Your task to perform on an android device: open app "Spotify: Music and Podcasts" (install if not already installed) and enter user name: "principled@inbox.com" and password: "arrests" Image 0: 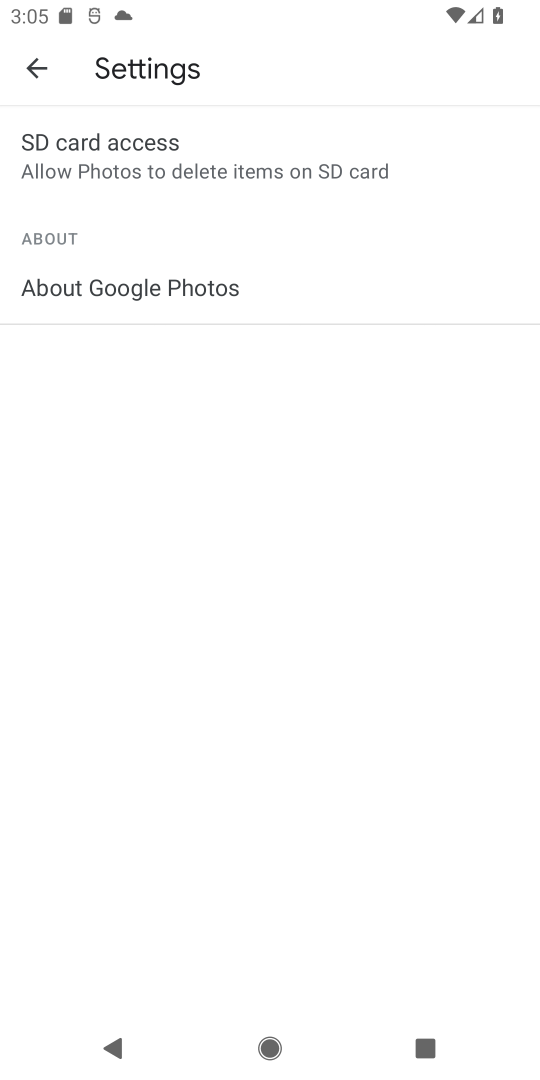
Step 0: press home button
Your task to perform on an android device: open app "Spotify: Music and Podcasts" (install if not already installed) and enter user name: "principled@inbox.com" and password: "arrests" Image 1: 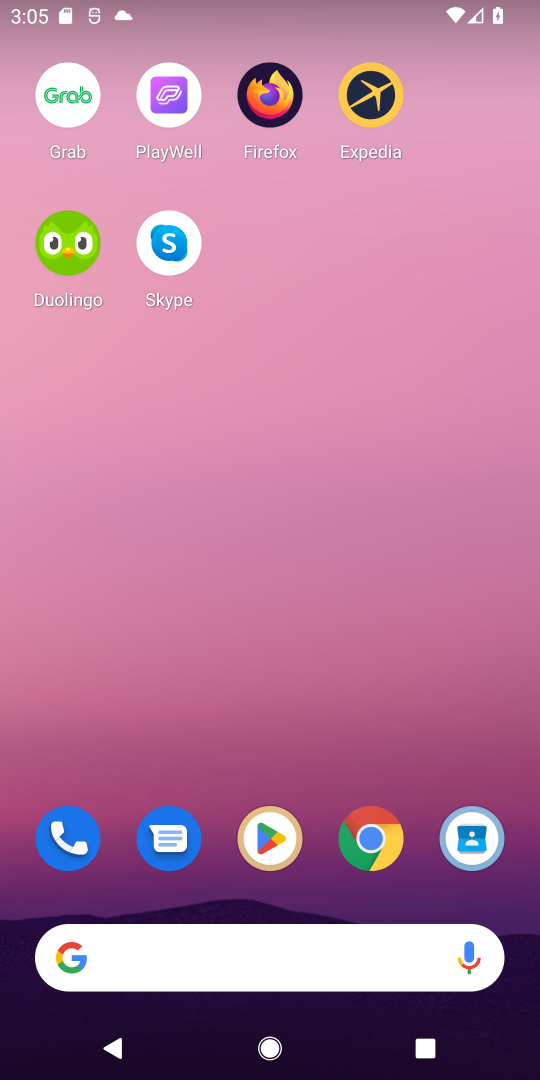
Step 1: click (289, 853)
Your task to perform on an android device: open app "Spotify: Music and Podcasts" (install if not already installed) and enter user name: "principled@inbox.com" and password: "arrests" Image 2: 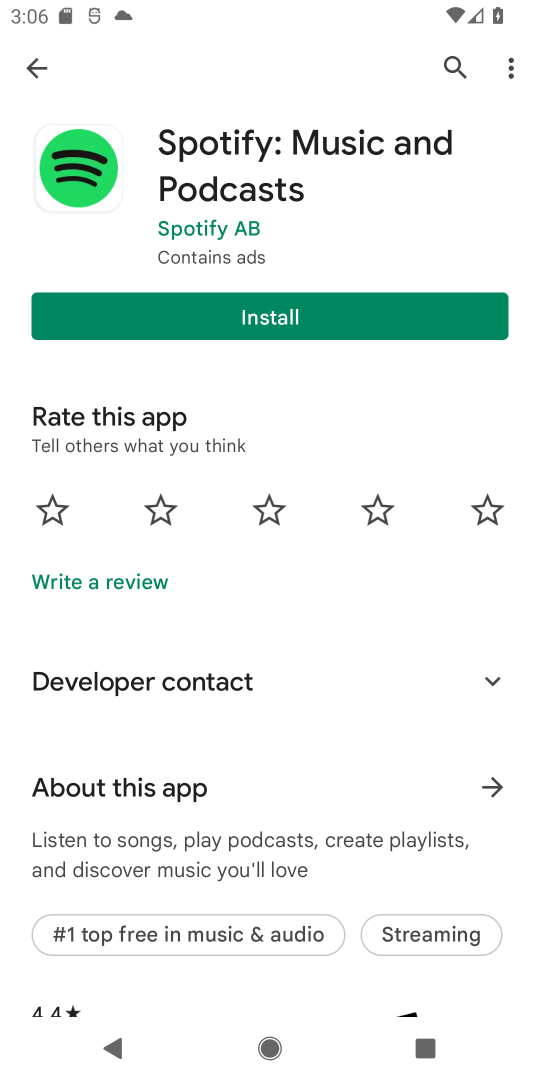
Step 2: click (34, 52)
Your task to perform on an android device: open app "Spotify: Music and Podcasts" (install if not already installed) and enter user name: "principled@inbox.com" and password: "arrests" Image 3: 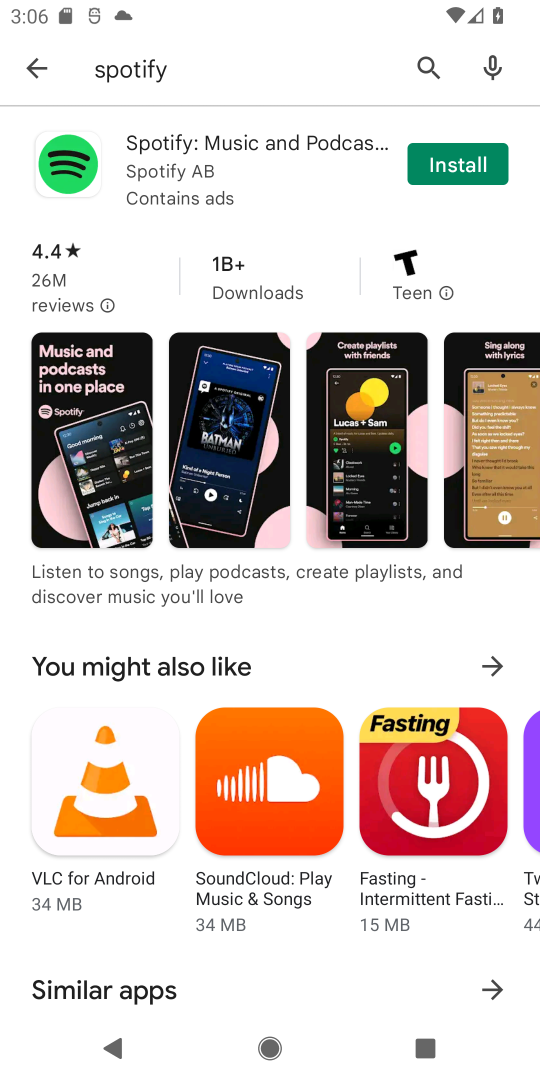
Step 3: click (487, 174)
Your task to perform on an android device: open app "Spotify: Music and Podcasts" (install if not already installed) and enter user name: "principled@inbox.com" and password: "arrests" Image 4: 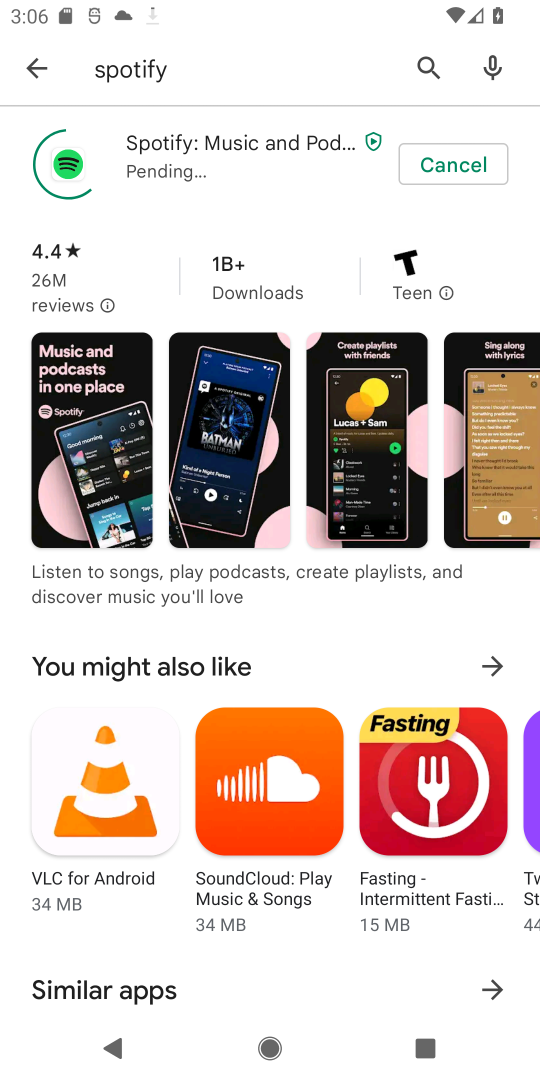
Step 4: click (266, 135)
Your task to perform on an android device: open app "Spotify: Music and Podcasts" (install if not already installed) and enter user name: "principled@inbox.com" and password: "arrests" Image 5: 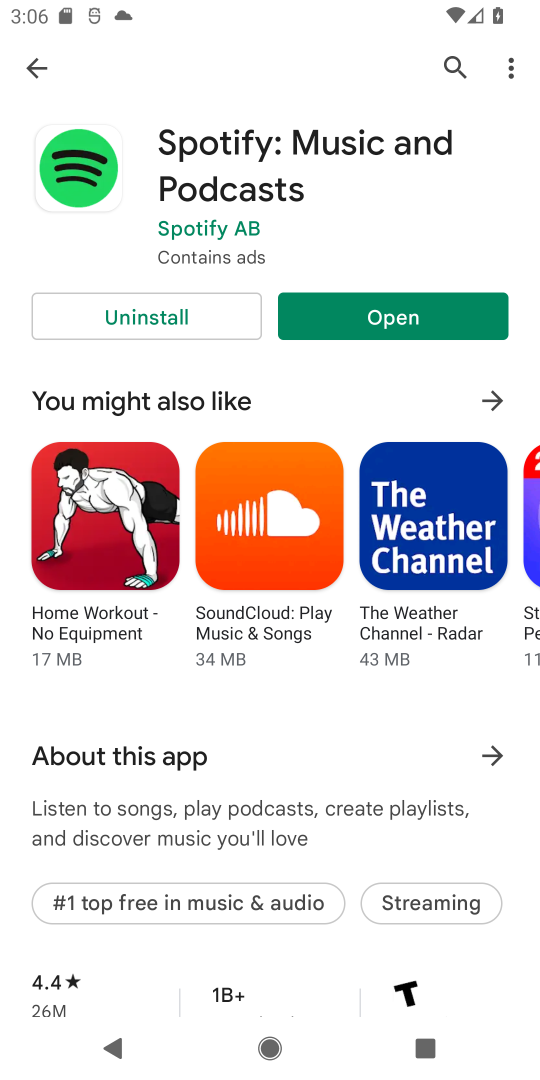
Step 5: click (365, 324)
Your task to perform on an android device: open app "Spotify: Music and Podcasts" (install if not already installed) and enter user name: "principled@inbox.com" and password: "arrests" Image 6: 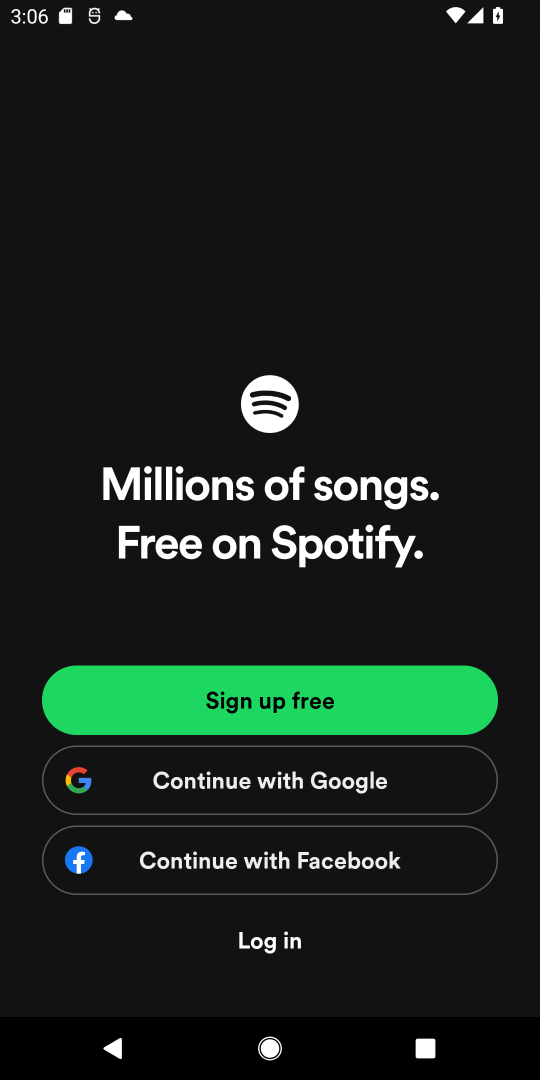
Step 6: click (249, 935)
Your task to perform on an android device: open app "Spotify: Music and Podcasts" (install if not already installed) and enter user name: "principled@inbox.com" and password: "arrests" Image 7: 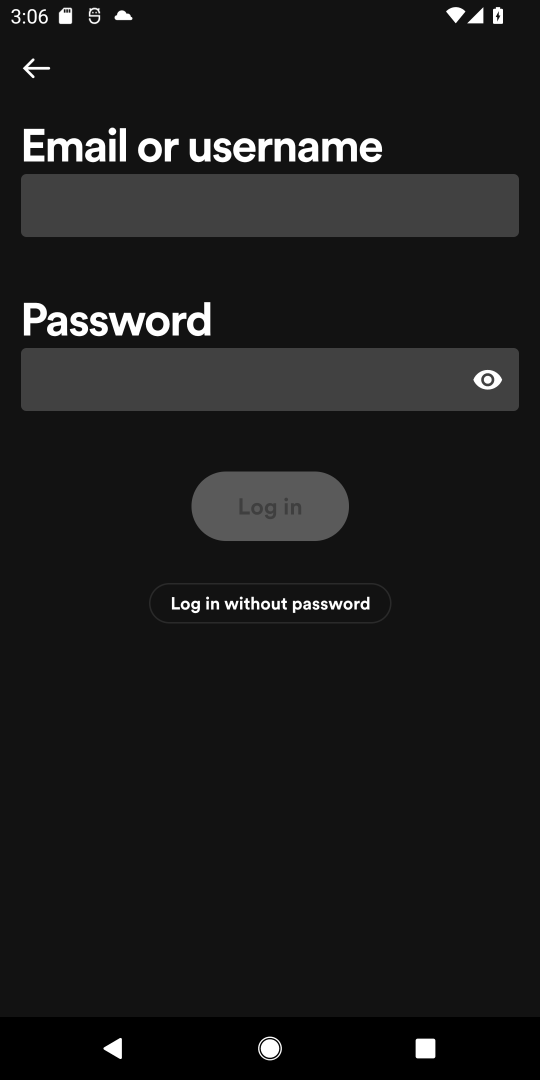
Step 7: click (171, 216)
Your task to perform on an android device: open app "Spotify: Music and Podcasts" (install if not already installed) and enter user name: "principled@inbox.com" and password: "arrests" Image 8: 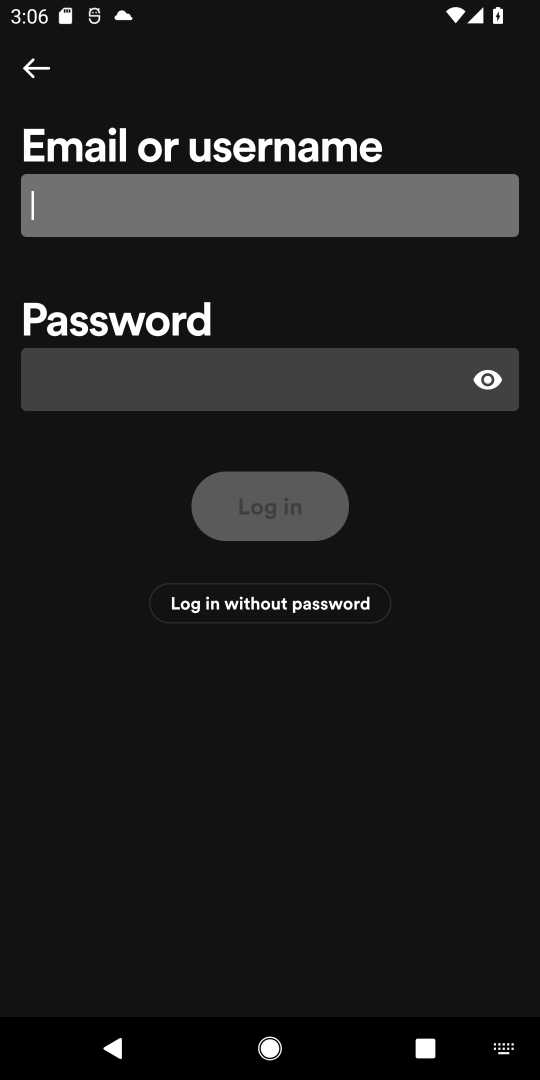
Step 8: type "principled@inbox.com"
Your task to perform on an android device: open app "Spotify: Music and Podcasts" (install if not already installed) and enter user name: "principled@inbox.com" and password: "arrests" Image 9: 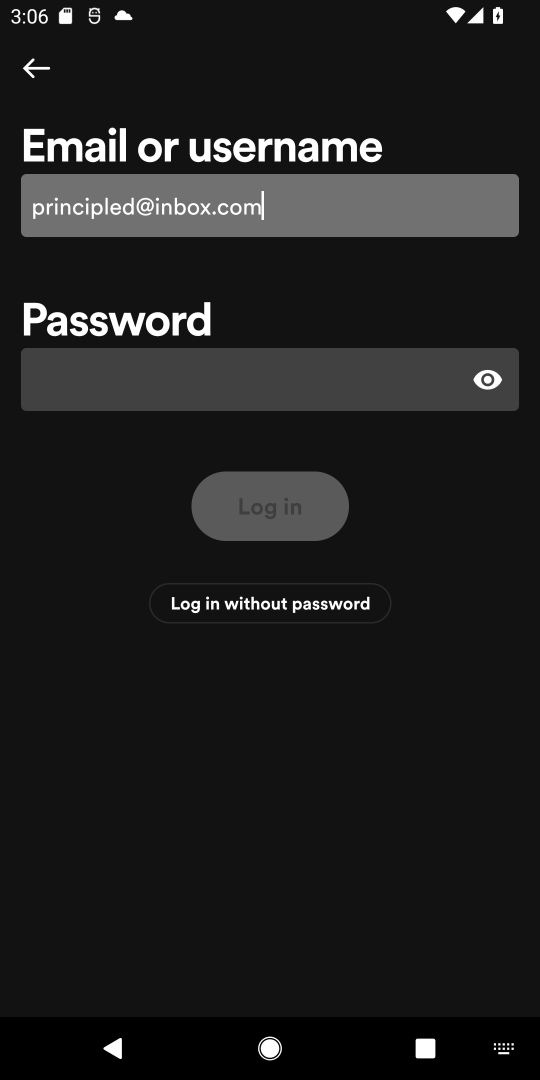
Step 9: click (336, 397)
Your task to perform on an android device: open app "Spotify: Music and Podcasts" (install if not already installed) and enter user name: "principled@inbox.com" and password: "arrests" Image 10: 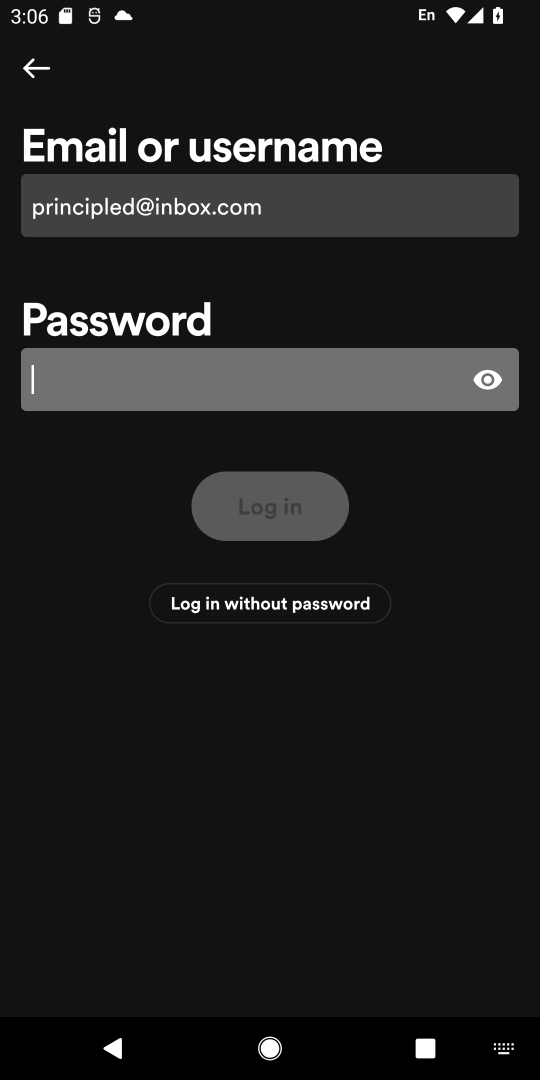
Step 10: type ""
Your task to perform on an android device: open app "Spotify: Music and Podcasts" (install if not already installed) and enter user name: "principled@inbox.com" and password: "arrests" Image 11: 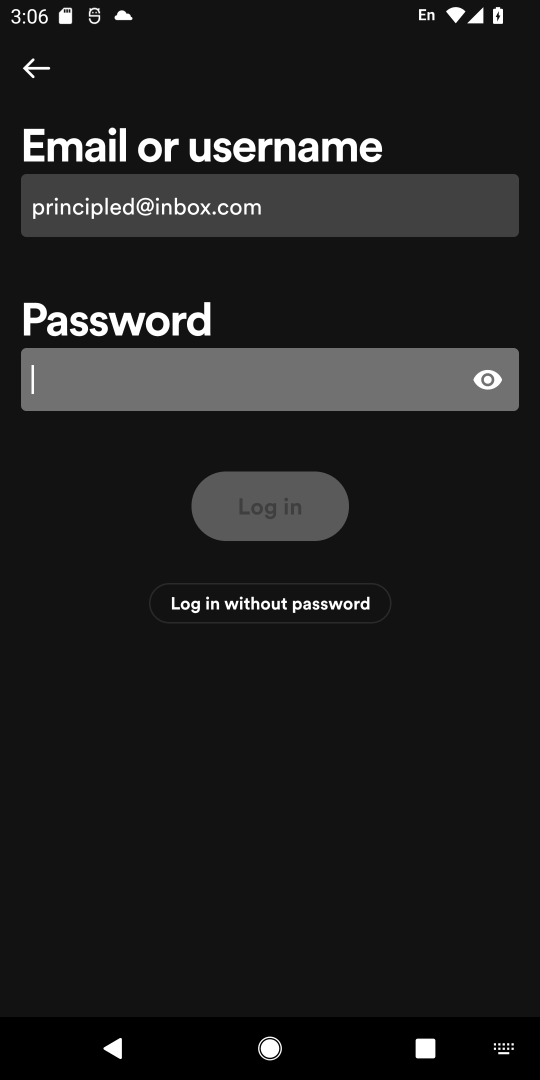
Step 11: type "arrests"
Your task to perform on an android device: open app "Spotify: Music and Podcasts" (install if not already installed) and enter user name: "principled@inbox.com" and password: "arrests" Image 12: 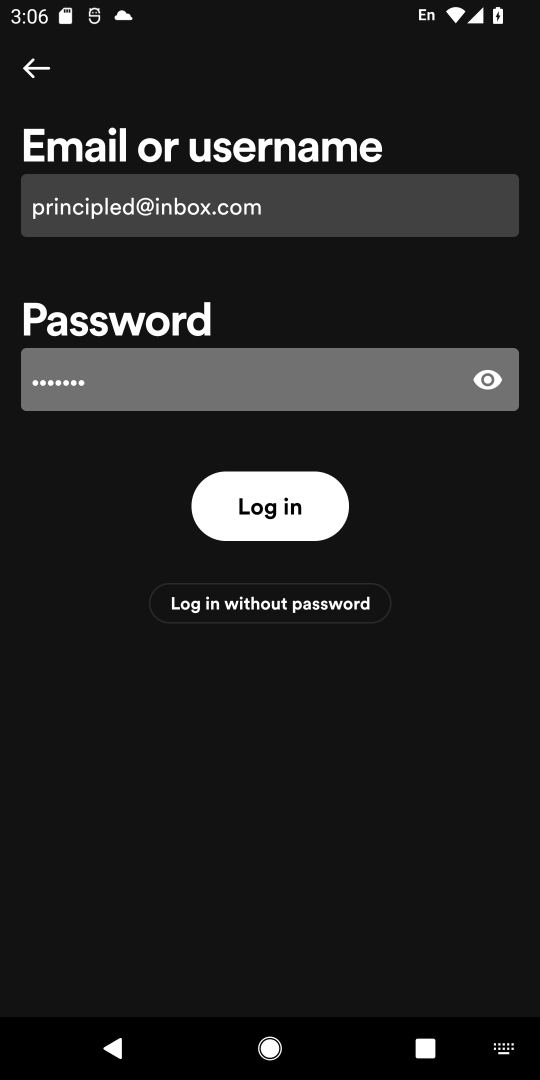
Step 12: task complete